Your task to perform on an android device: empty trash in the gmail app Image 0: 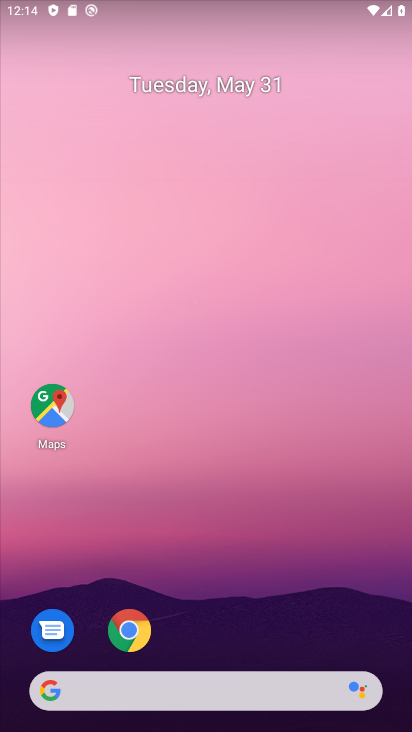
Step 0: drag from (238, 422) to (280, 216)
Your task to perform on an android device: empty trash in the gmail app Image 1: 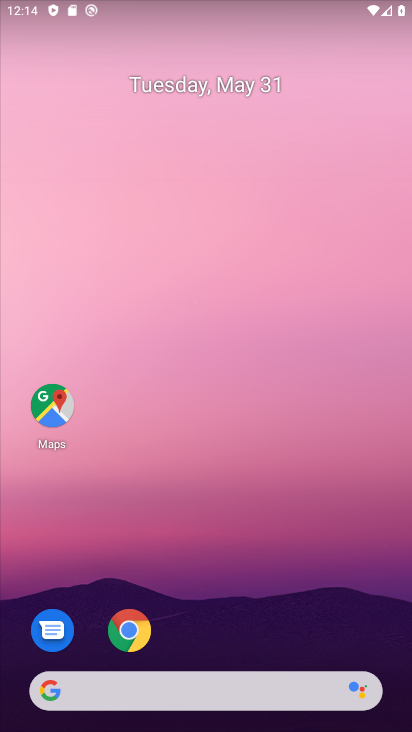
Step 1: drag from (254, 613) to (332, 88)
Your task to perform on an android device: empty trash in the gmail app Image 2: 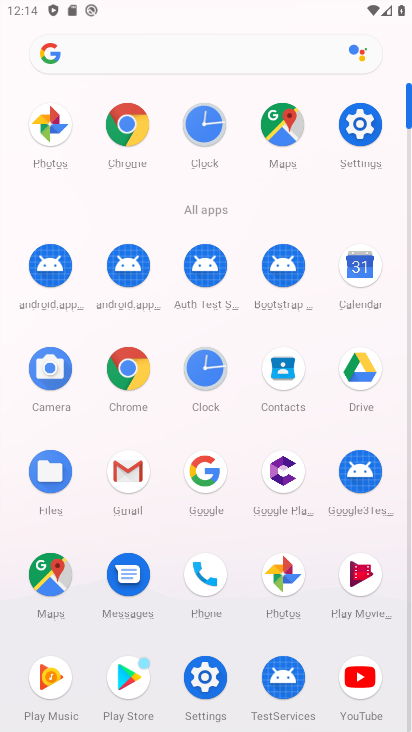
Step 2: click (129, 490)
Your task to perform on an android device: empty trash in the gmail app Image 3: 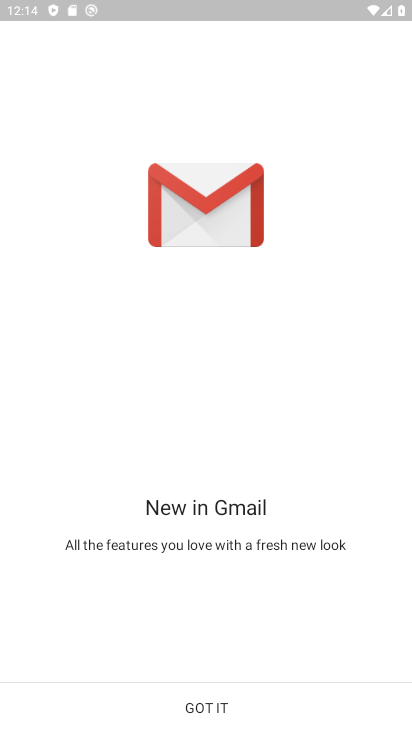
Step 3: click (232, 716)
Your task to perform on an android device: empty trash in the gmail app Image 4: 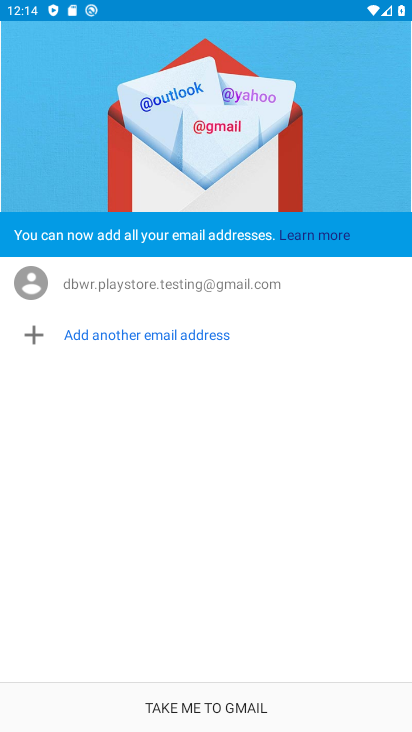
Step 4: click (224, 706)
Your task to perform on an android device: empty trash in the gmail app Image 5: 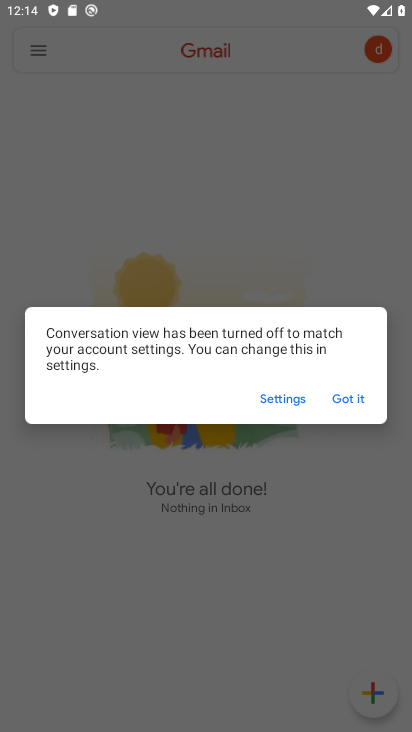
Step 5: click (359, 390)
Your task to perform on an android device: empty trash in the gmail app Image 6: 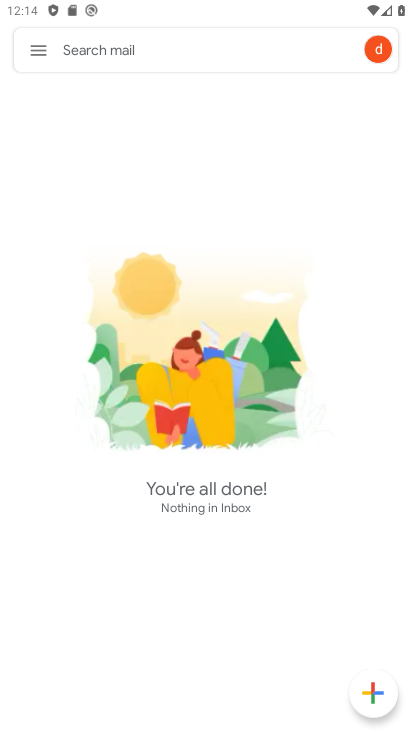
Step 6: click (38, 50)
Your task to perform on an android device: empty trash in the gmail app Image 7: 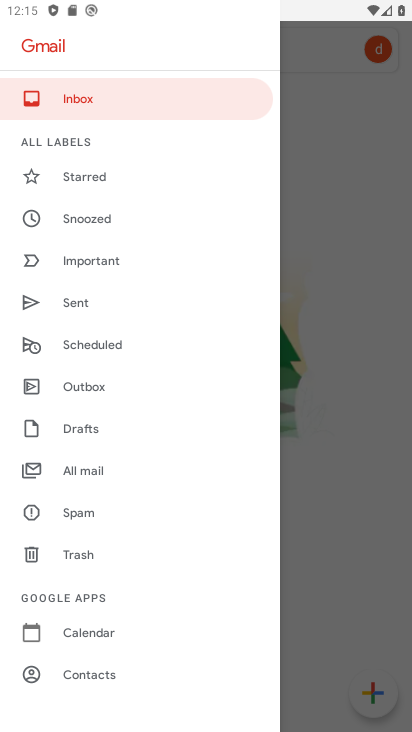
Step 7: click (82, 553)
Your task to perform on an android device: empty trash in the gmail app Image 8: 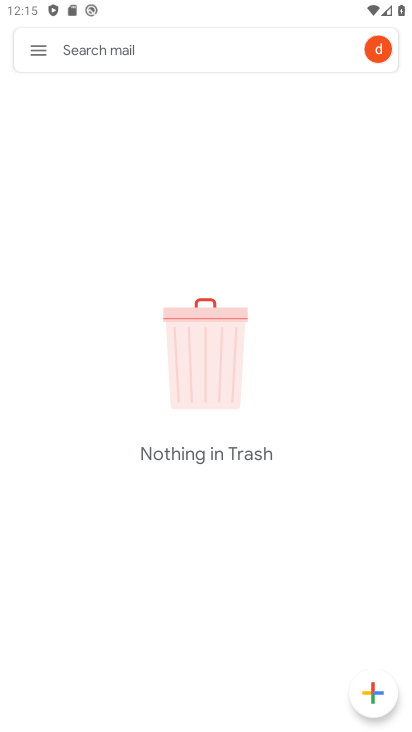
Step 8: task complete